Your task to perform on an android device: turn notification dots off Image 0: 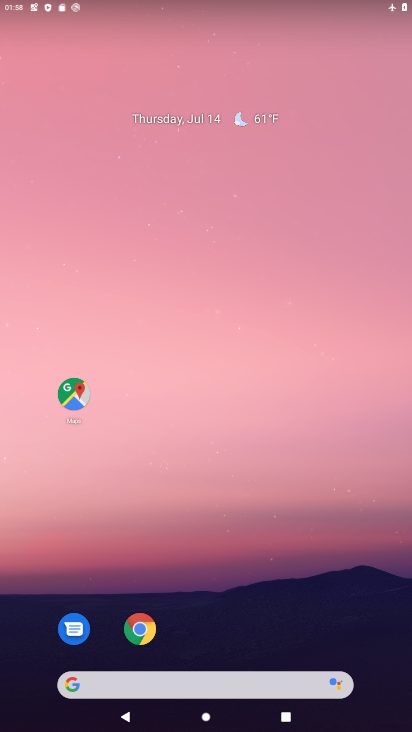
Step 0: drag from (342, 593) to (247, 2)
Your task to perform on an android device: turn notification dots off Image 1: 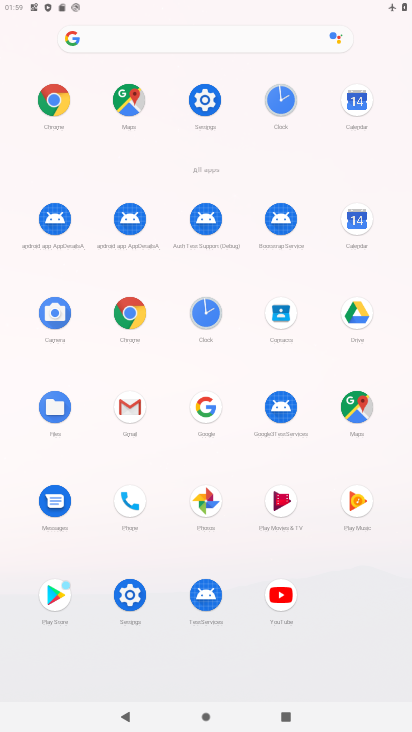
Step 1: click (210, 97)
Your task to perform on an android device: turn notification dots off Image 2: 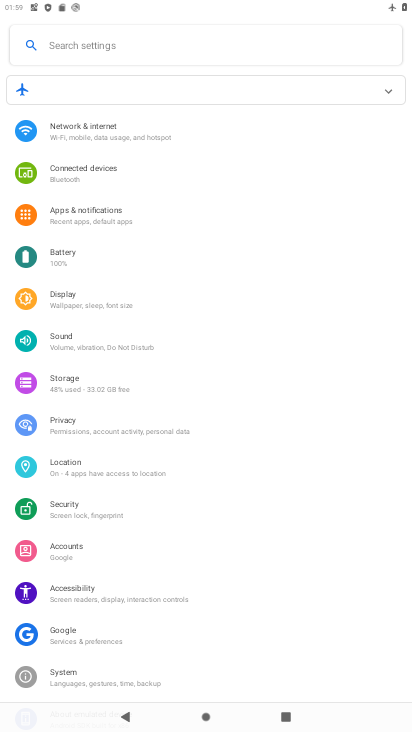
Step 2: click (82, 208)
Your task to perform on an android device: turn notification dots off Image 3: 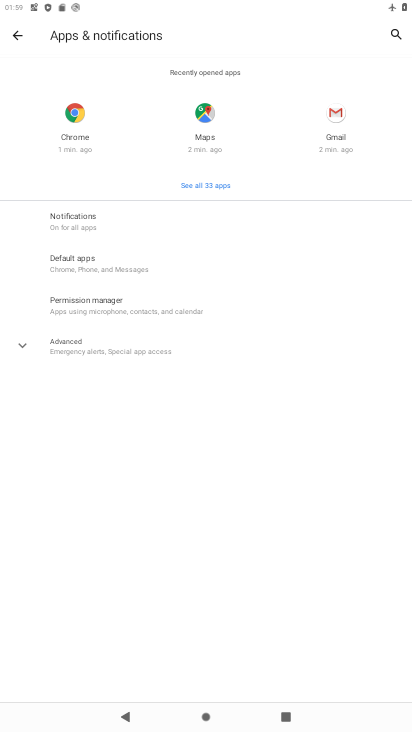
Step 3: click (100, 212)
Your task to perform on an android device: turn notification dots off Image 4: 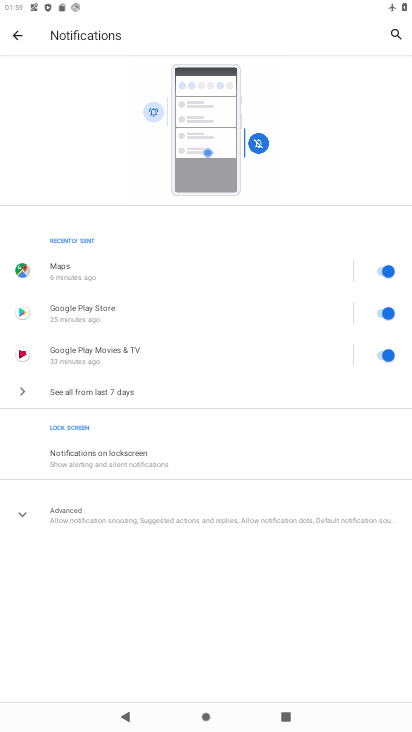
Step 4: click (104, 506)
Your task to perform on an android device: turn notification dots off Image 5: 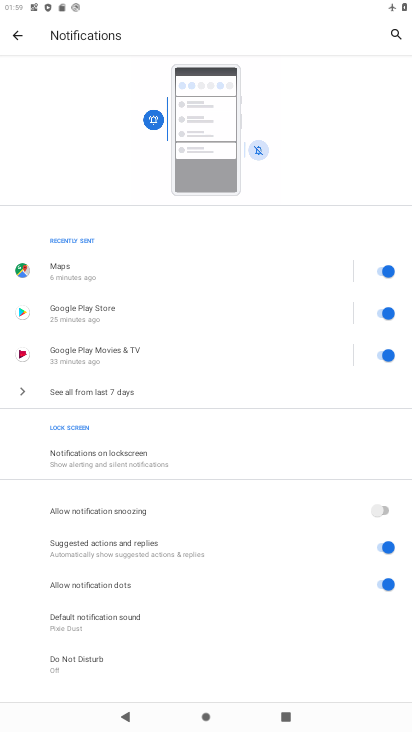
Step 5: click (387, 587)
Your task to perform on an android device: turn notification dots off Image 6: 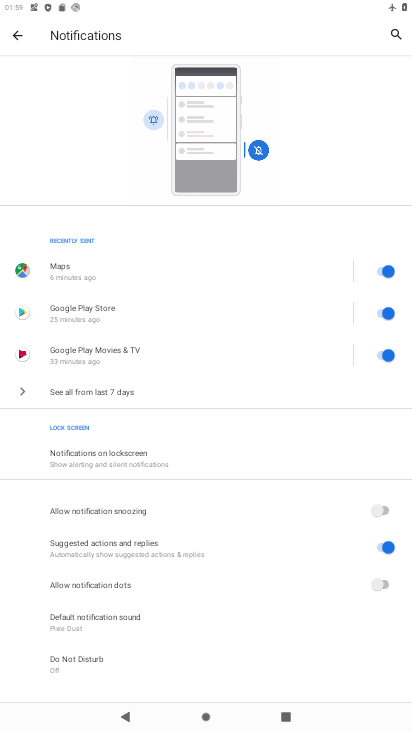
Step 6: task complete